Your task to perform on an android device: find photos in the google photos app Image 0: 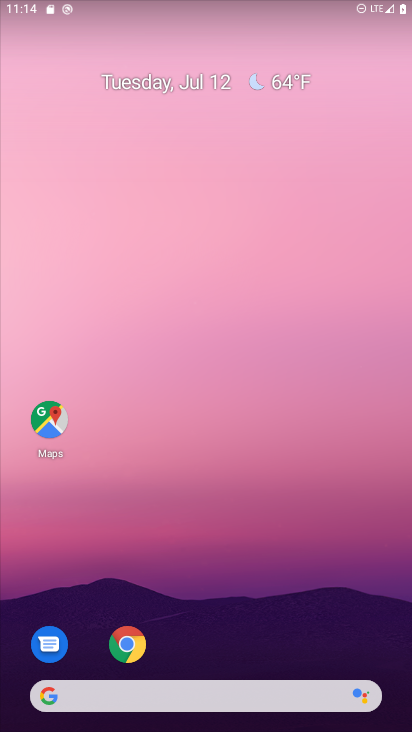
Step 0: drag from (288, 628) to (294, 46)
Your task to perform on an android device: find photos in the google photos app Image 1: 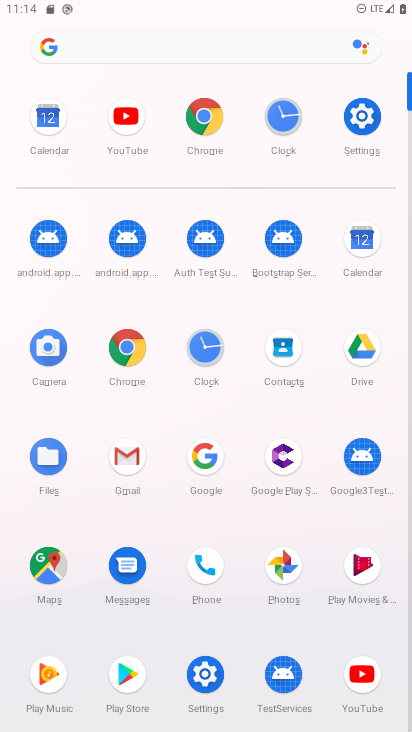
Step 1: click (275, 577)
Your task to perform on an android device: find photos in the google photos app Image 2: 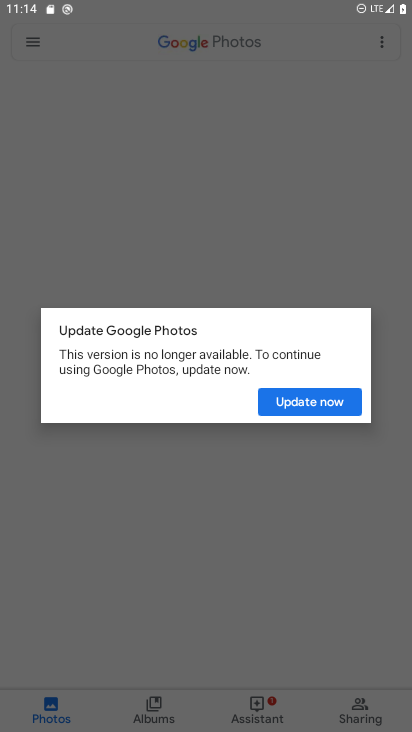
Step 2: click (304, 412)
Your task to perform on an android device: find photos in the google photos app Image 3: 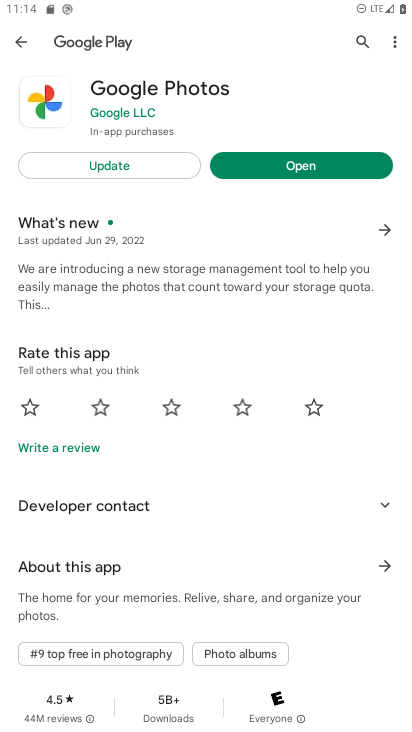
Step 3: click (131, 164)
Your task to perform on an android device: find photos in the google photos app Image 4: 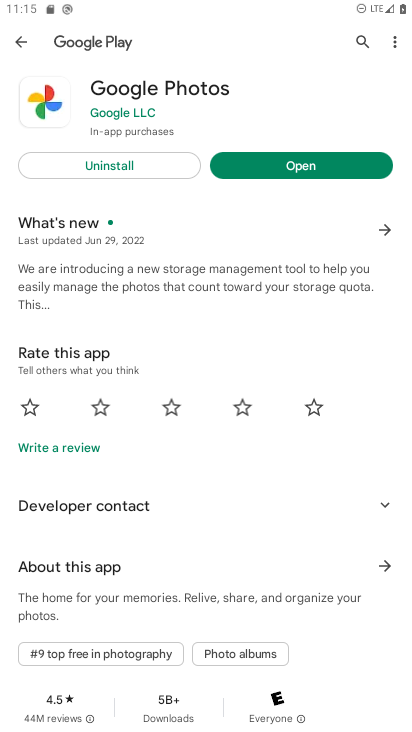
Step 4: click (313, 166)
Your task to perform on an android device: find photos in the google photos app Image 5: 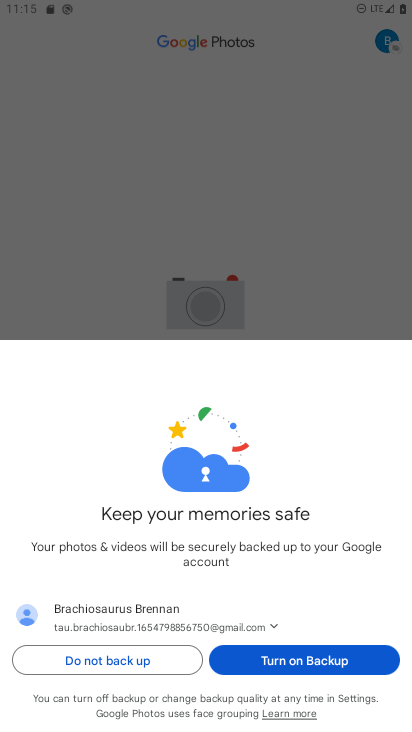
Step 5: click (240, 655)
Your task to perform on an android device: find photos in the google photos app Image 6: 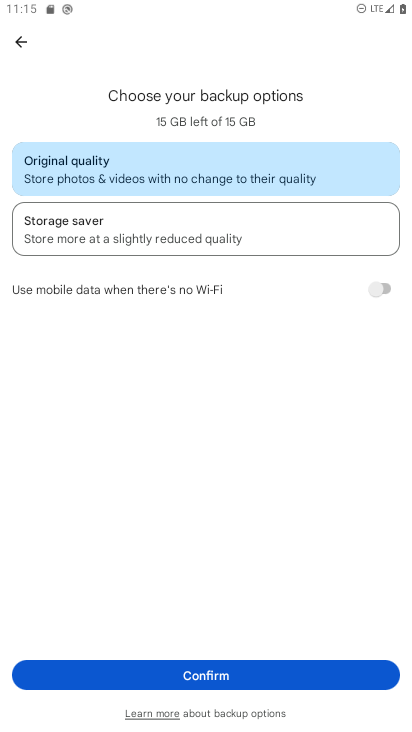
Step 6: click (235, 661)
Your task to perform on an android device: find photos in the google photos app Image 7: 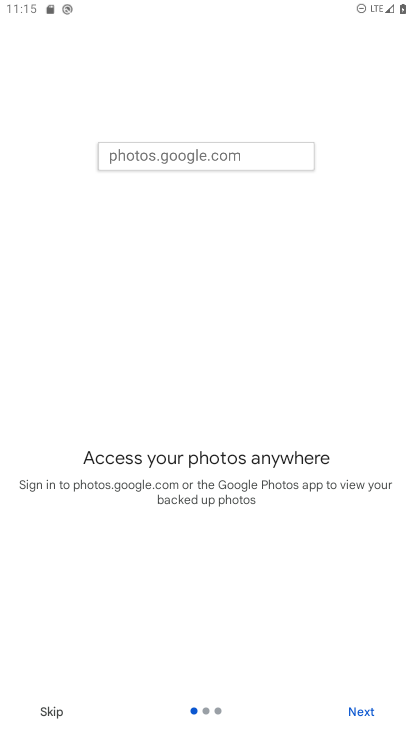
Step 7: click (344, 702)
Your task to perform on an android device: find photos in the google photos app Image 8: 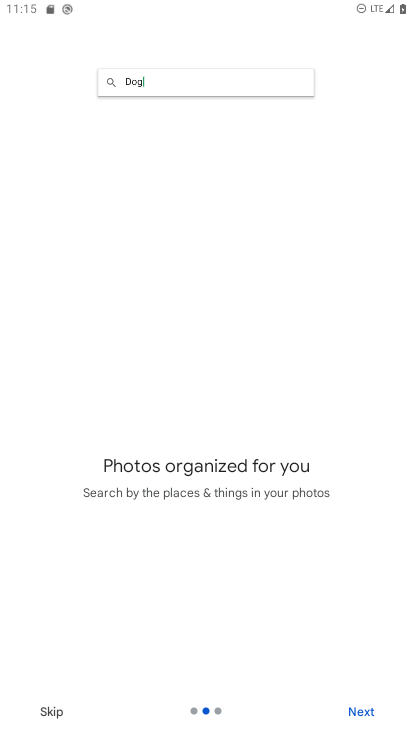
Step 8: click (344, 702)
Your task to perform on an android device: find photos in the google photos app Image 9: 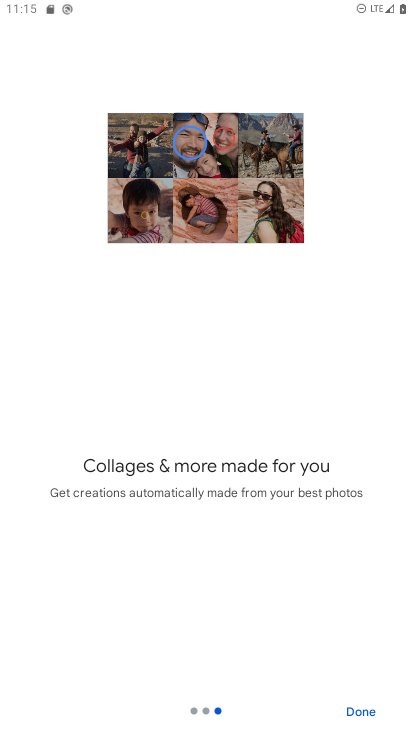
Step 9: click (344, 702)
Your task to perform on an android device: find photos in the google photos app Image 10: 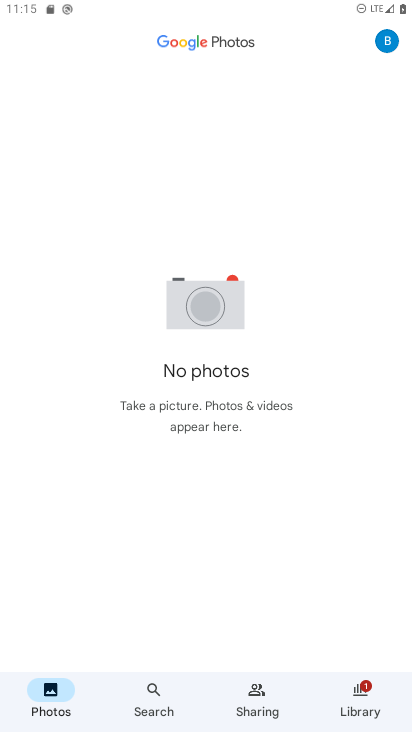
Step 10: task complete